Your task to perform on an android device: Go to Amazon Image 0: 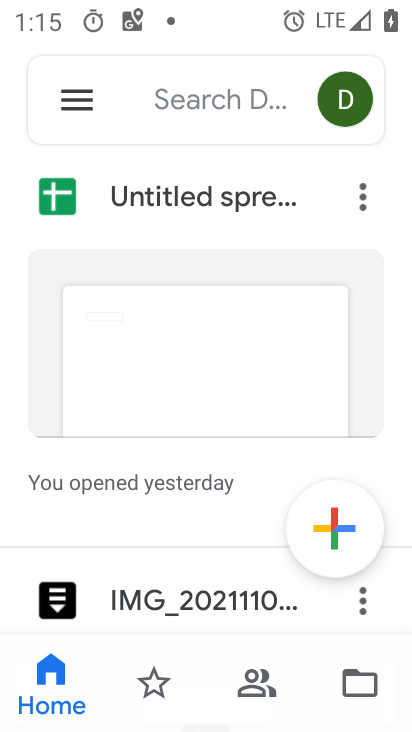
Step 0: press home button
Your task to perform on an android device: Go to Amazon Image 1: 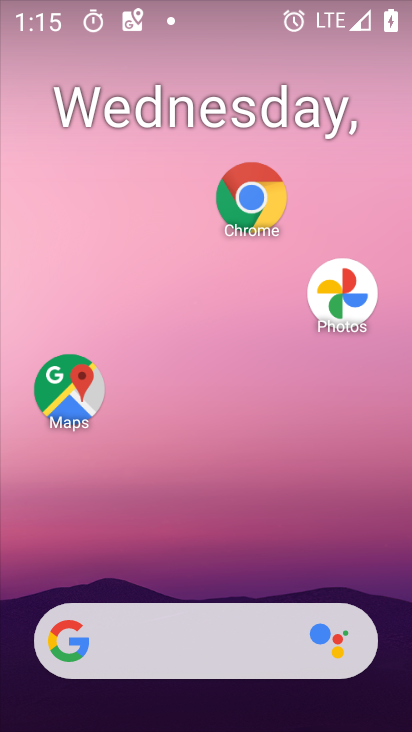
Step 1: drag from (201, 593) to (169, 288)
Your task to perform on an android device: Go to Amazon Image 2: 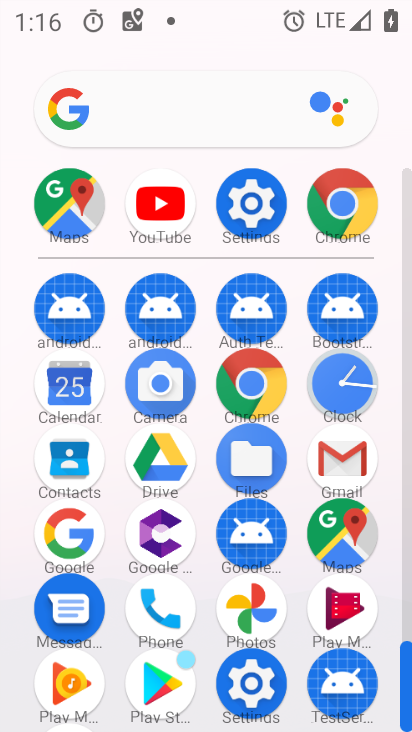
Step 2: click (243, 377)
Your task to perform on an android device: Go to Amazon Image 3: 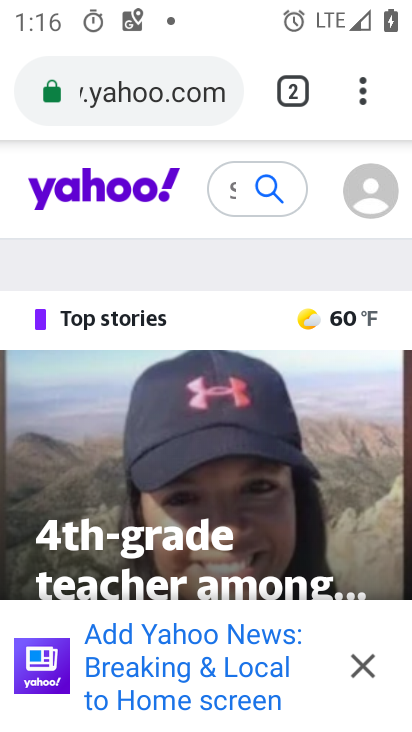
Step 3: click (204, 106)
Your task to perform on an android device: Go to Amazon Image 4: 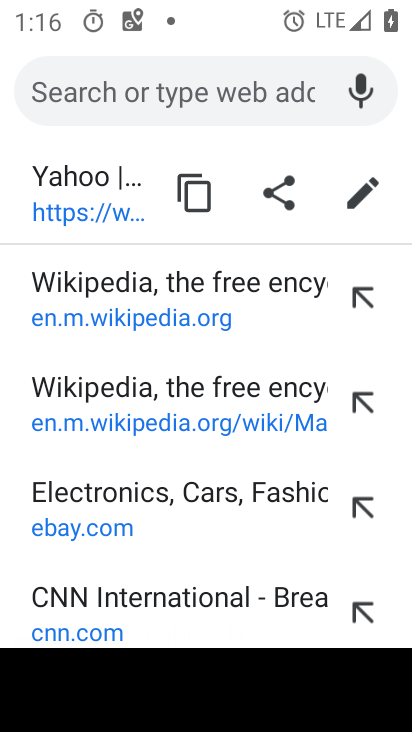
Step 4: type "amazon"
Your task to perform on an android device: Go to Amazon Image 5: 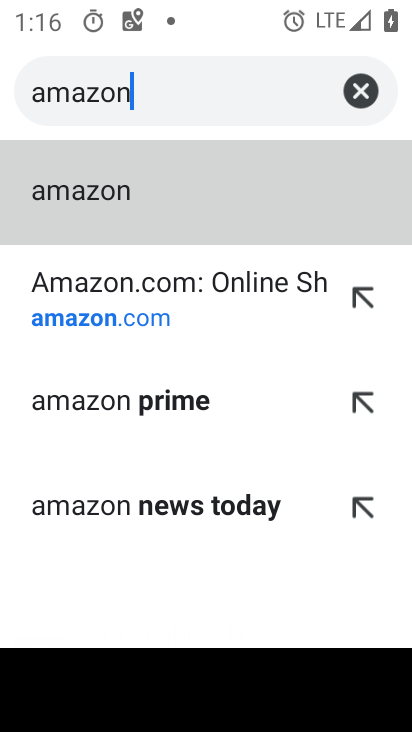
Step 5: click (199, 307)
Your task to perform on an android device: Go to Amazon Image 6: 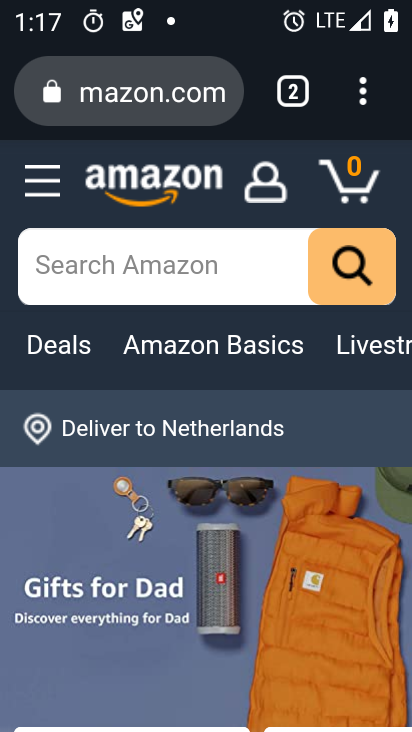
Step 6: task complete